Your task to perform on an android device: change the upload size in google photos Image 0: 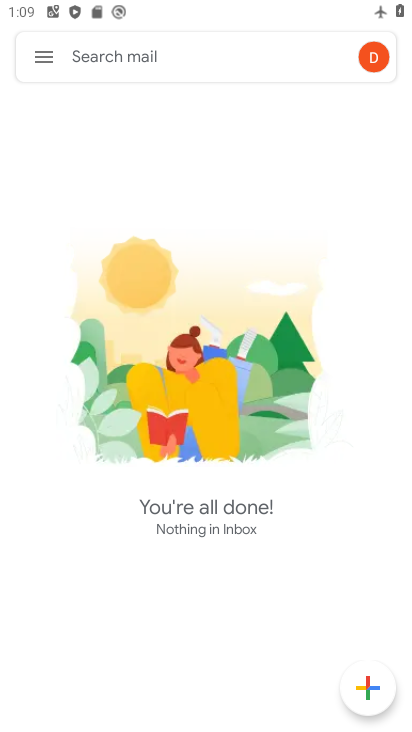
Step 0: press home button
Your task to perform on an android device: change the upload size in google photos Image 1: 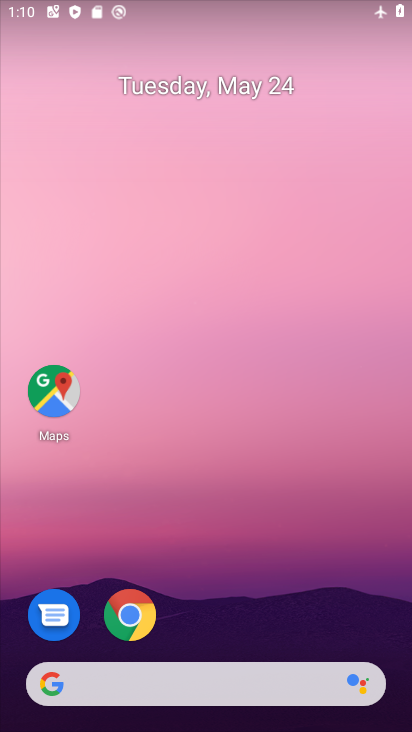
Step 1: drag from (193, 610) to (266, 140)
Your task to perform on an android device: change the upload size in google photos Image 2: 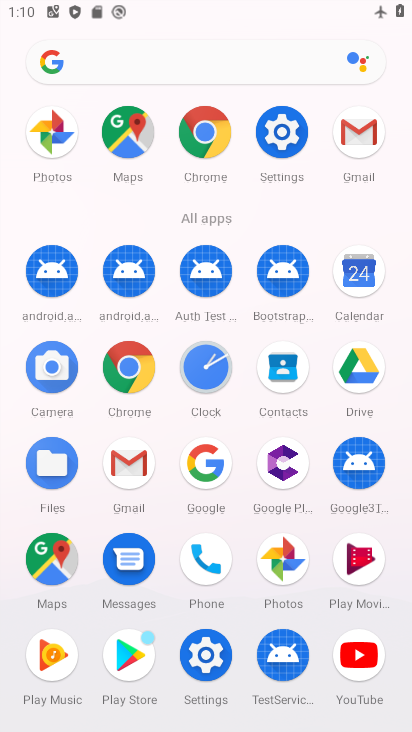
Step 2: click (277, 554)
Your task to perform on an android device: change the upload size in google photos Image 3: 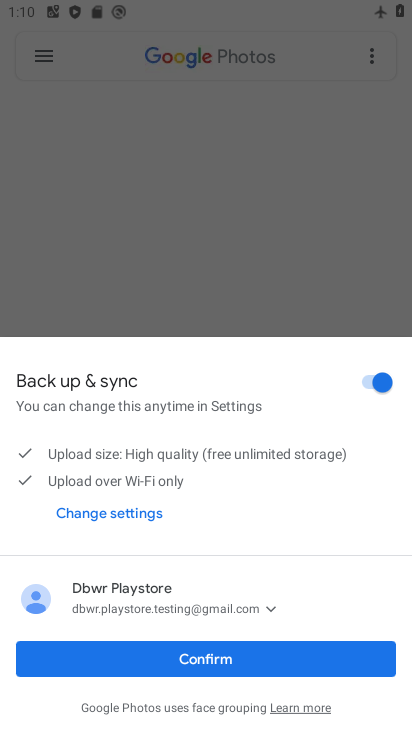
Step 3: click (174, 648)
Your task to perform on an android device: change the upload size in google photos Image 4: 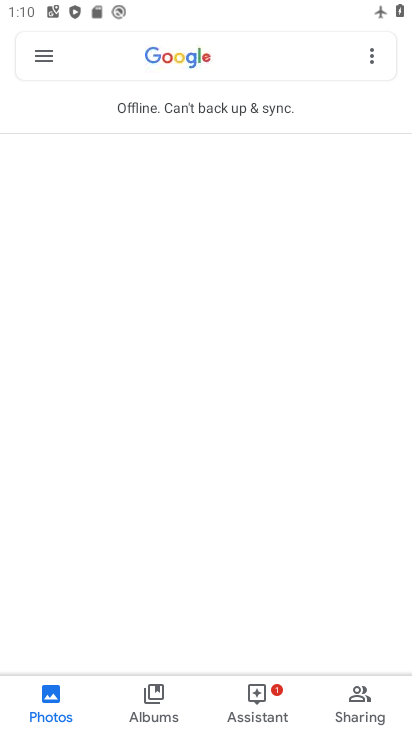
Step 4: click (37, 48)
Your task to perform on an android device: change the upload size in google photos Image 5: 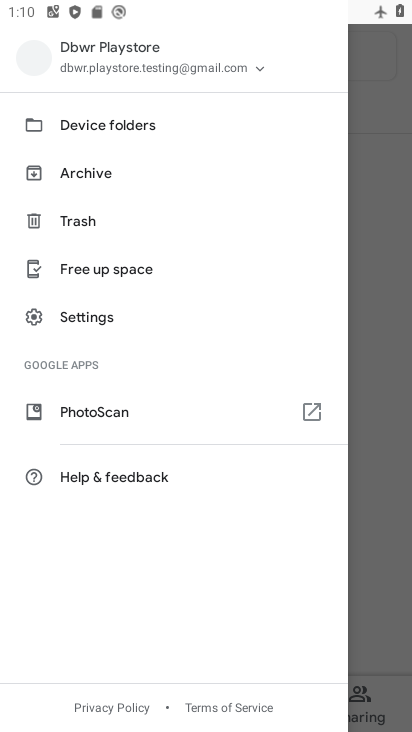
Step 5: click (97, 316)
Your task to perform on an android device: change the upload size in google photos Image 6: 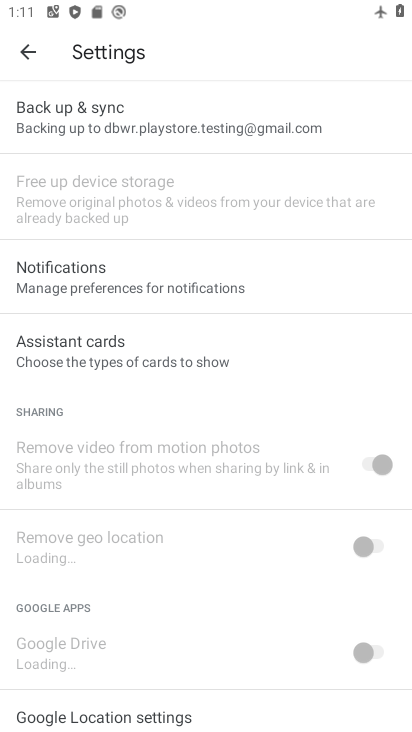
Step 6: click (100, 121)
Your task to perform on an android device: change the upload size in google photos Image 7: 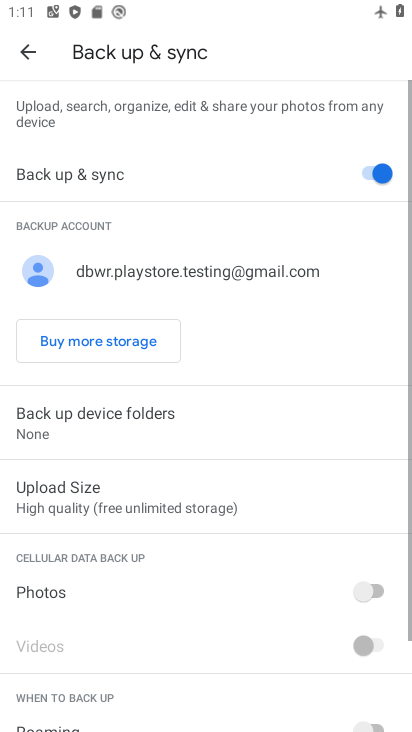
Step 7: click (89, 497)
Your task to perform on an android device: change the upload size in google photos Image 8: 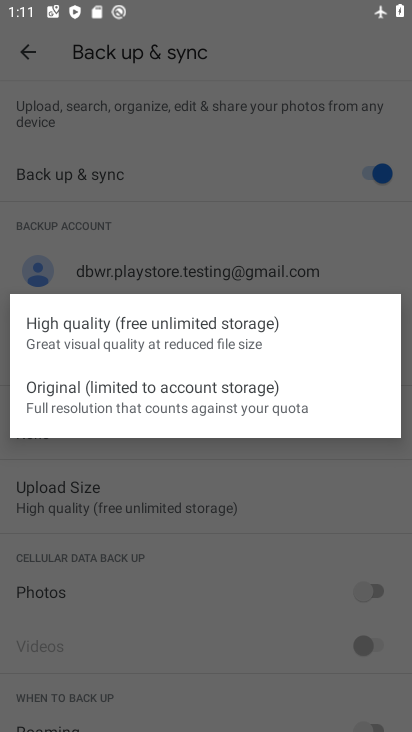
Step 8: click (115, 402)
Your task to perform on an android device: change the upload size in google photos Image 9: 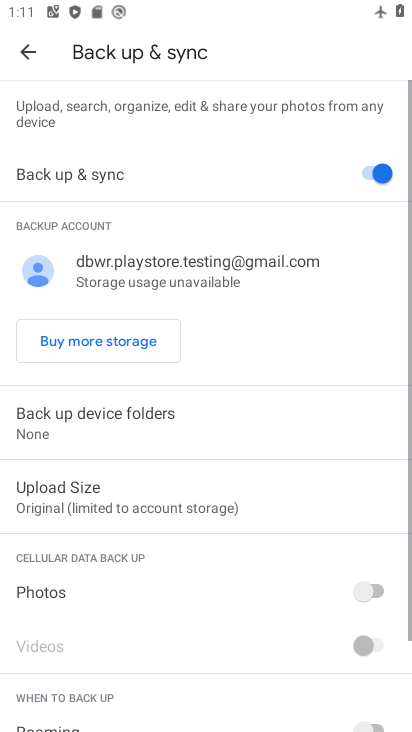
Step 9: task complete